Your task to perform on an android device: Show me the alarms in the clock app Image 0: 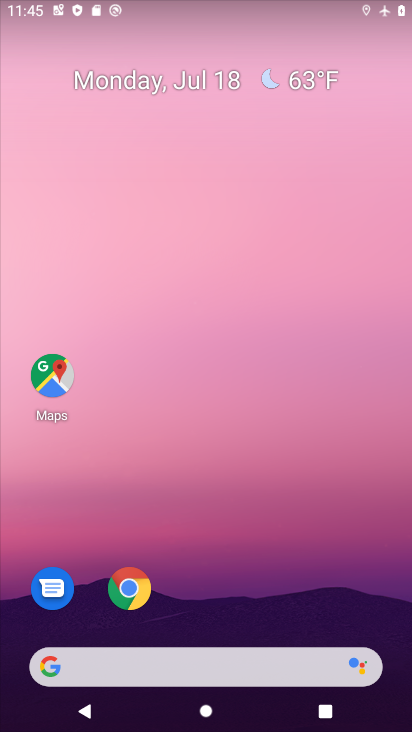
Step 0: drag from (241, 537) to (12, 298)
Your task to perform on an android device: Show me the alarms in the clock app Image 1: 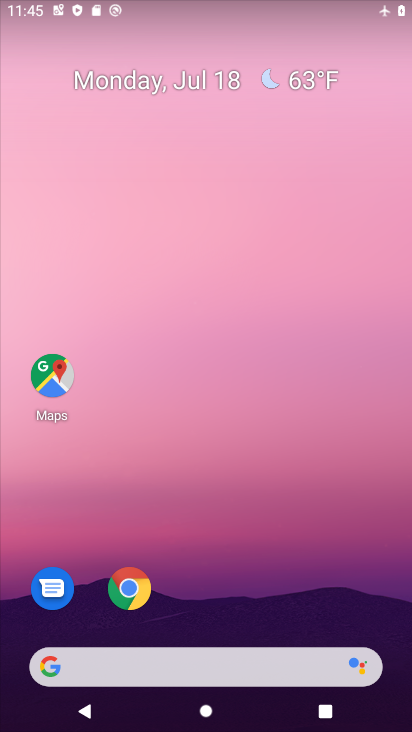
Step 1: drag from (304, 620) to (303, 5)
Your task to perform on an android device: Show me the alarms in the clock app Image 2: 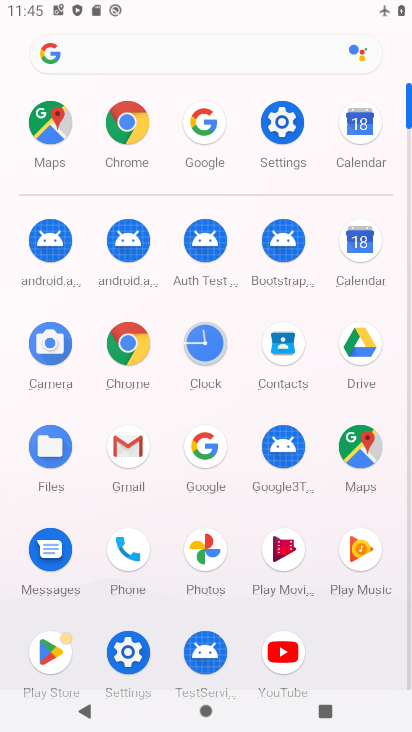
Step 2: click (206, 351)
Your task to perform on an android device: Show me the alarms in the clock app Image 3: 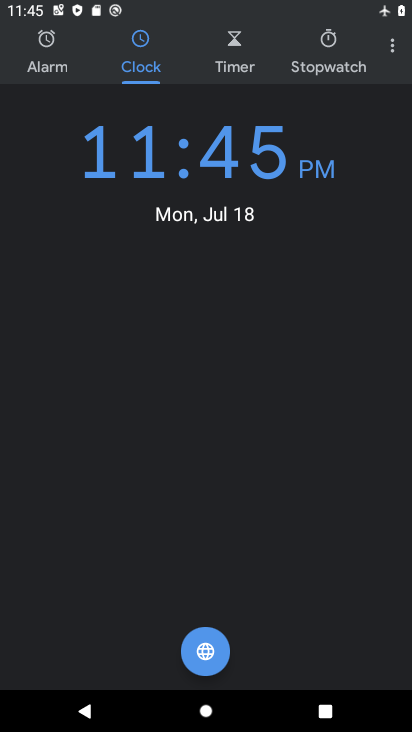
Step 3: click (57, 66)
Your task to perform on an android device: Show me the alarms in the clock app Image 4: 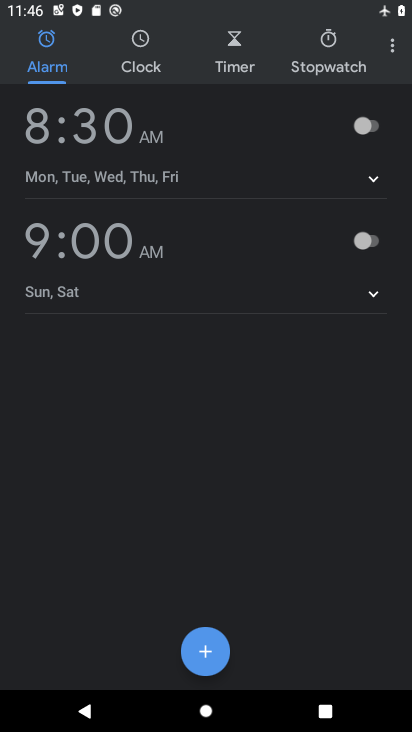
Step 4: click (153, 164)
Your task to perform on an android device: Show me the alarms in the clock app Image 5: 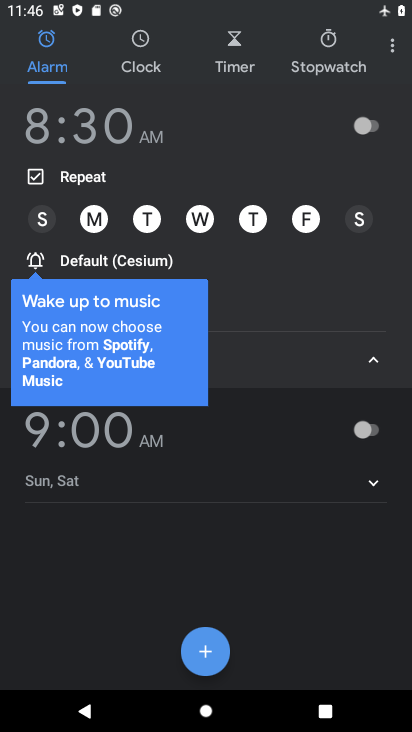
Step 5: task complete